Your task to perform on an android device: Open CNN.com Image 0: 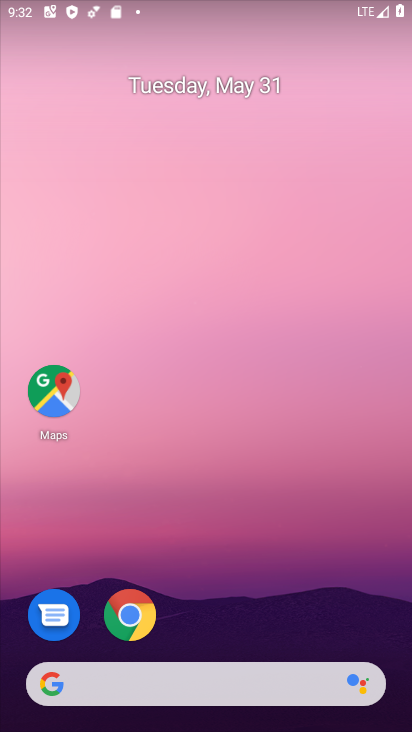
Step 0: drag from (332, 536) to (352, 191)
Your task to perform on an android device: Open CNN.com Image 1: 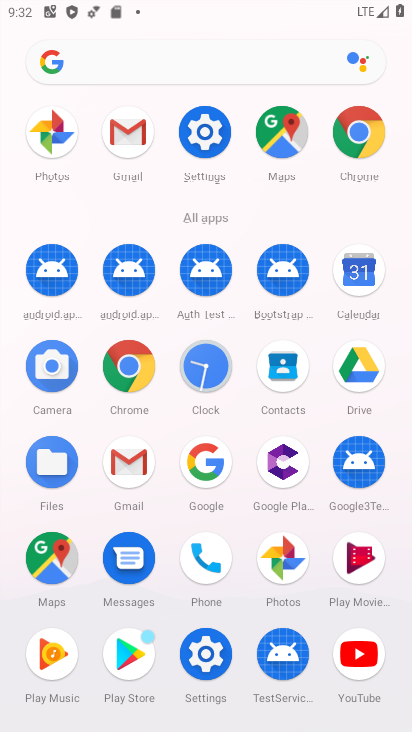
Step 1: click (384, 132)
Your task to perform on an android device: Open CNN.com Image 2: 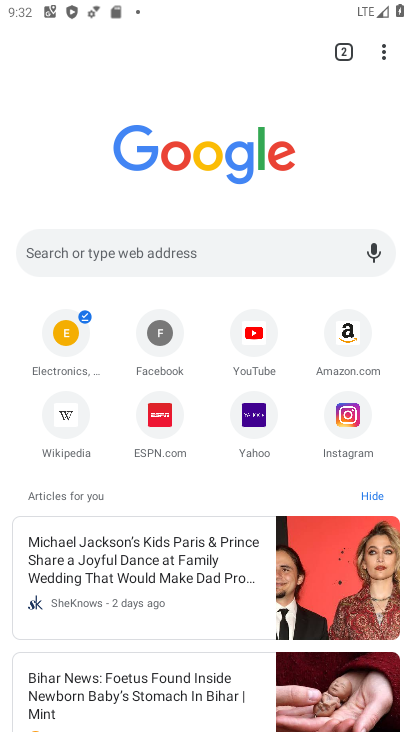
Step 2: click (203, 234)
Your task to perform on an android device: Open CNN.com Image 3: 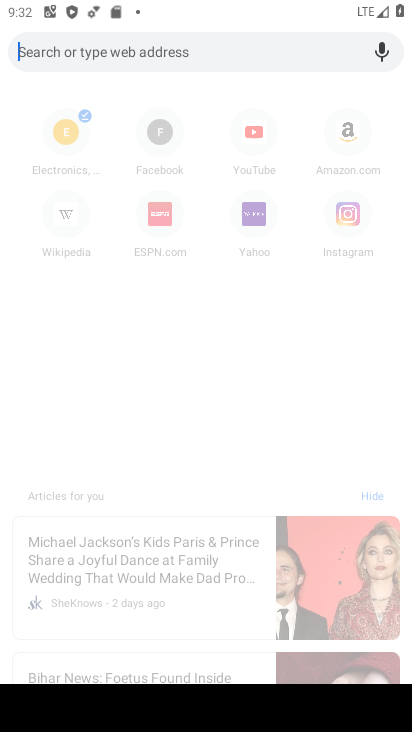
Step 3: type "cnn"
Your task to perform on an android device: Open CNN.com Image 4: 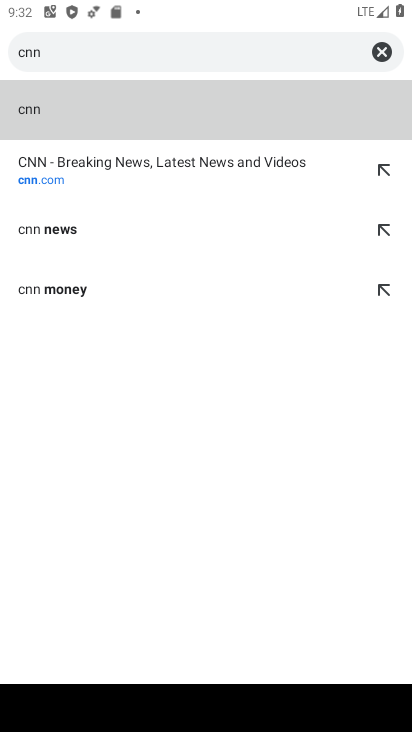
Step 4: click (42, 157)
Your task to perform on an android device: Open CNN.com Image 5: 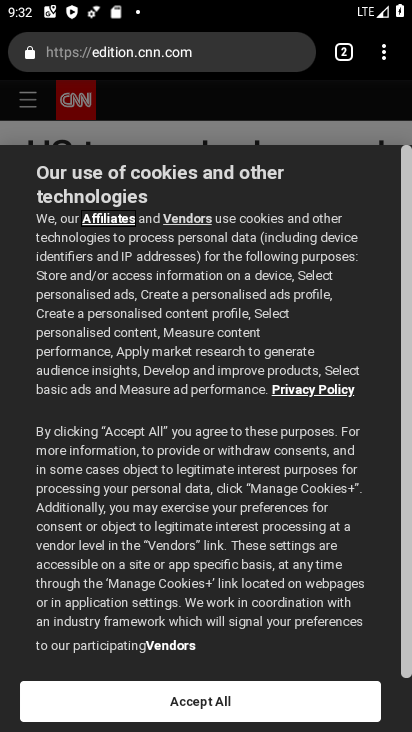
Step 5: task complete